Your task to perform on an android device: uninstall "Fetch Rewards" Image 0: 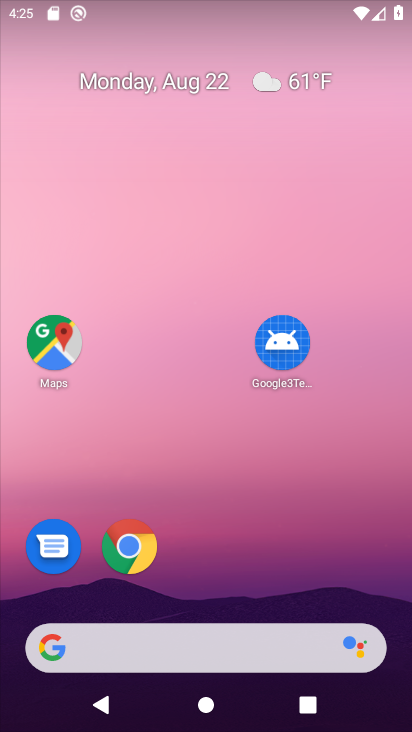
Step 0: drag from (398, 616) to (351, 137)
Your task to perform on an android device: uninstall "Fetch Rewards" Image 1: 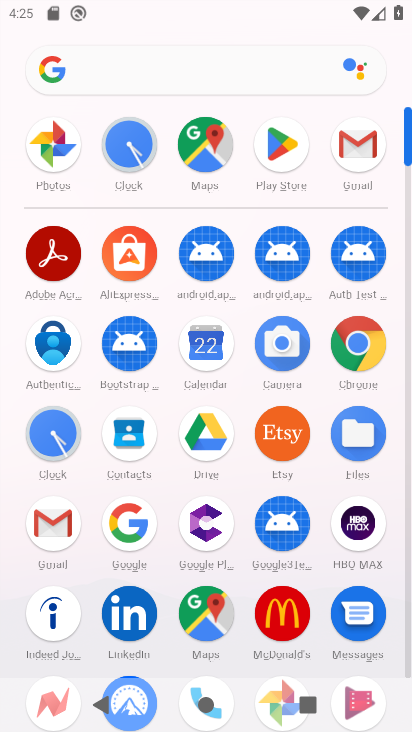
Step 1: click (410, 627)
Your task to perform on an android device: uninstall "Fetch Rewards" Image 2: 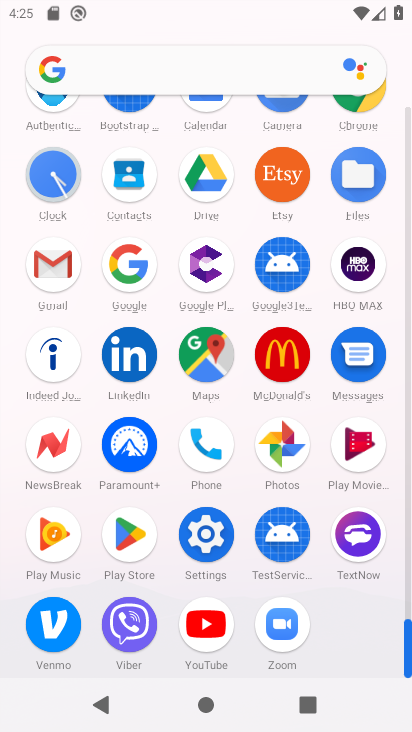
Step 2: click (132, 532)
Your task to perform on an android device: uninstall "Fetch Rewards" Image 3: 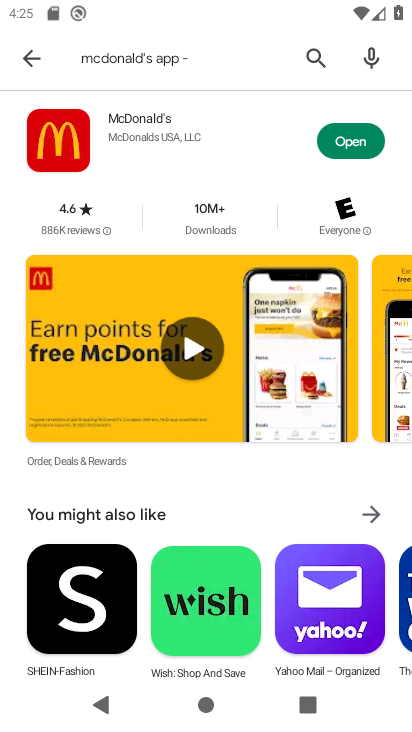
Step 3: click (313, 51)
Your task to perform on an android device: uninstall "Fetch Rewards" Image 4: 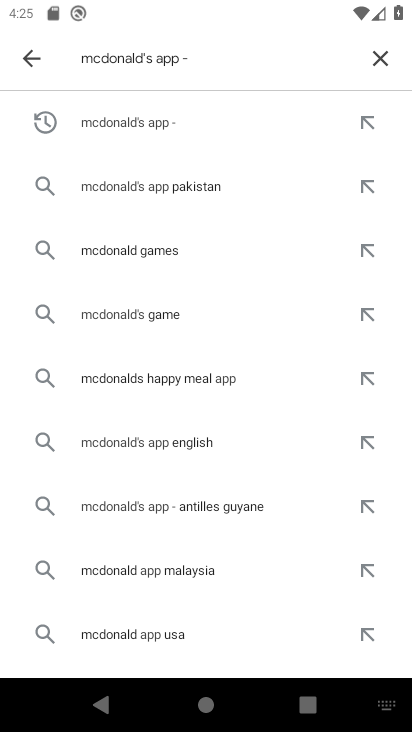
Step 4: click (378, 56)
Your task to perform on an android device: uninstall "Fetch Rewards" Image 5: 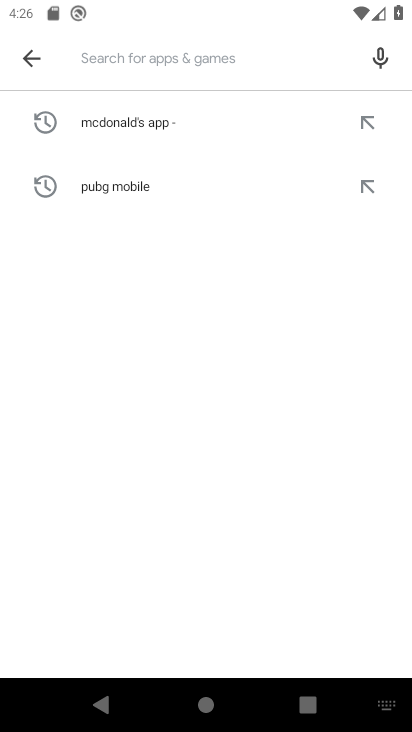
Step 5: type "Fetch Rewards"
Your task to perform on an android device: uninstall "Fetch Rewards" Image 6: 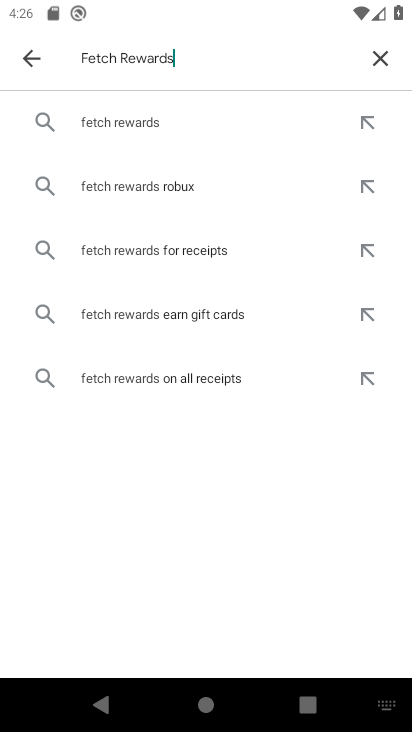
Step 6: click (136, 121)
Your task to perform on an android device: uninstall "Fetch Rewards" Image 7: 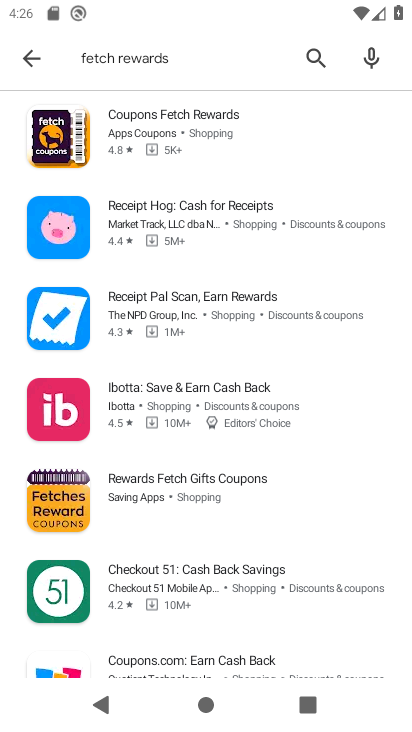
Step 7: task complete